Your task to perform on an android device: turn notification dots off Image 0: 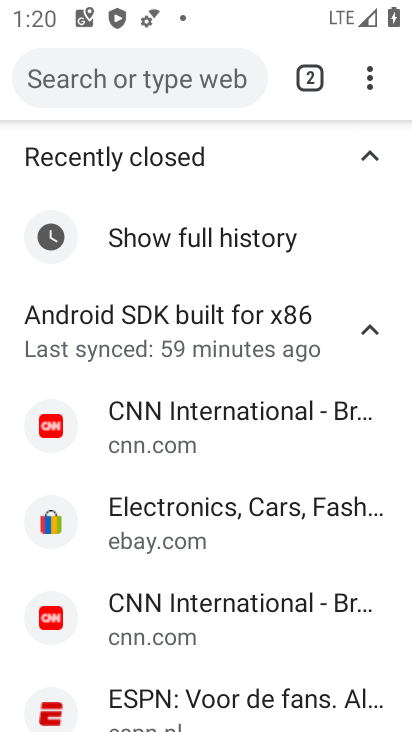
Step 0: press home button
Your task to perform on an android device: turn notification dots off Image 1: 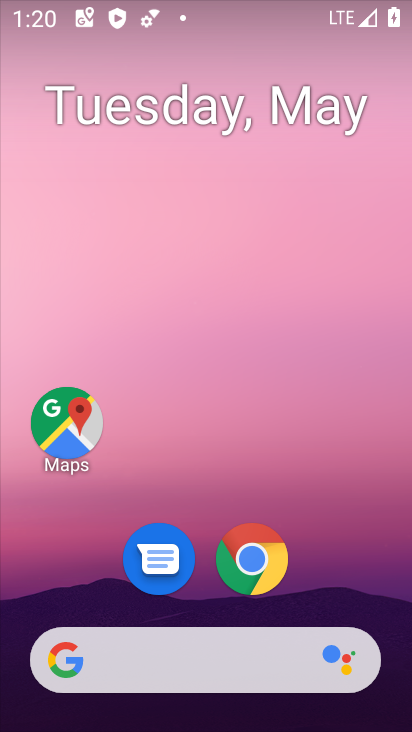
Step 1: drag from (315, 468) to (203, 44)
Your task to perform on an android device: turn notification dots off Image 2: 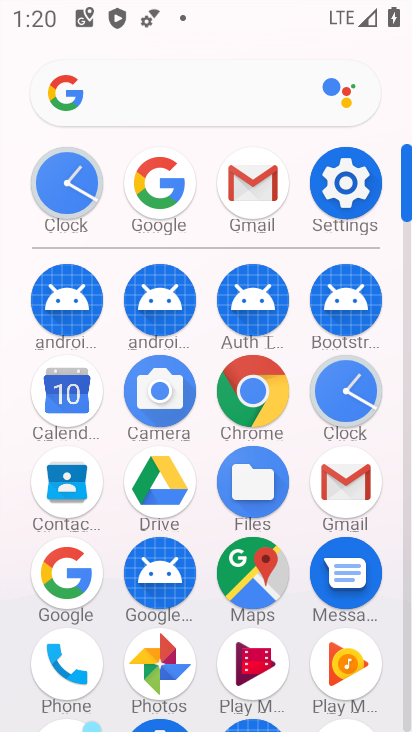
Step 2: click (349, 184)
Your task to perform on an android device: turn notification dots off Image 3: 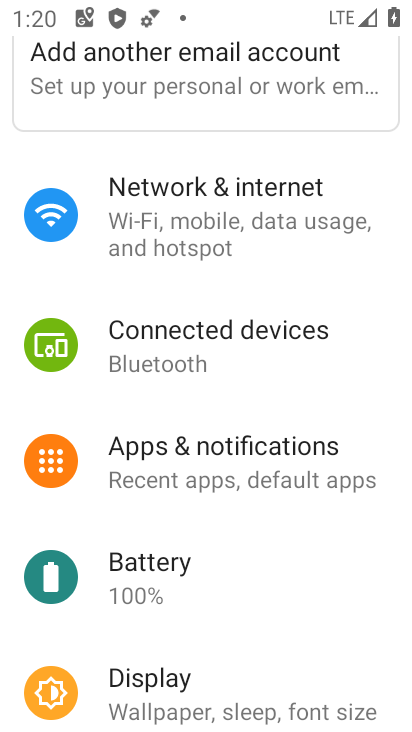
Step 3: click (208, 470)
Your task to perform on an android device: turn notification dots off Image 4: 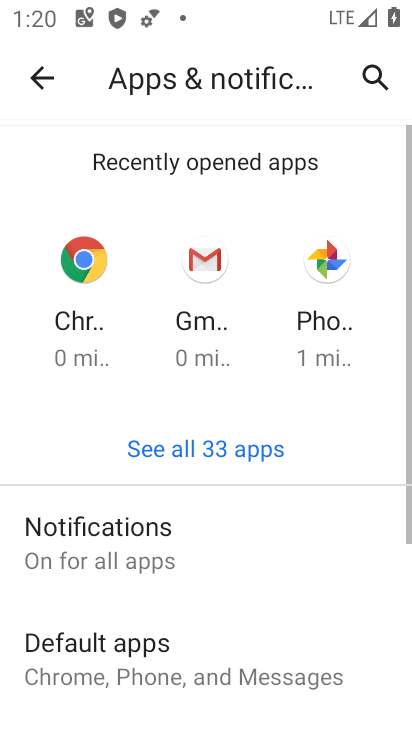
Step 4: click (140, 568)
Your task to perform on an android device: turn notification dots off Image 5: 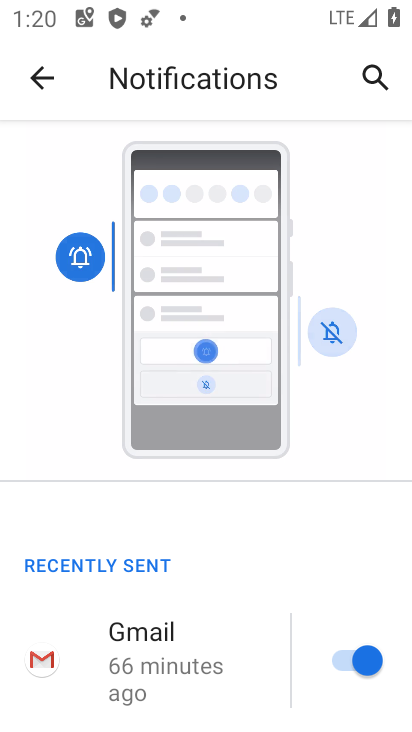
Step 5: drag from (216, 642) to (207, 313)
Your task to perform on an android device: turn notification dots off Image 6: 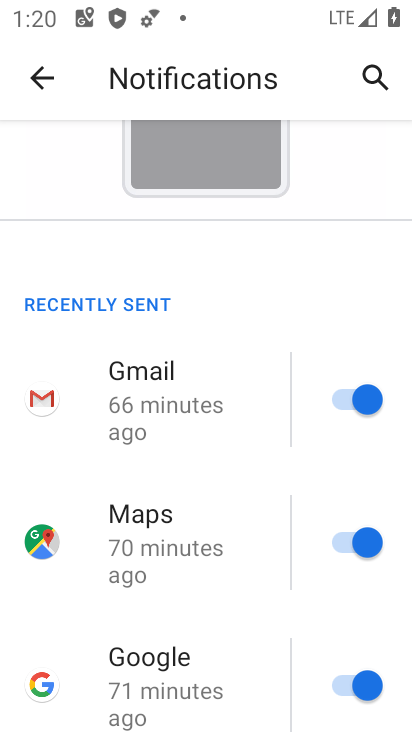
Step 6: drag from (216, 610) to (211, 256)
Your task to perform on an android device: turn notification dots off Image 7: 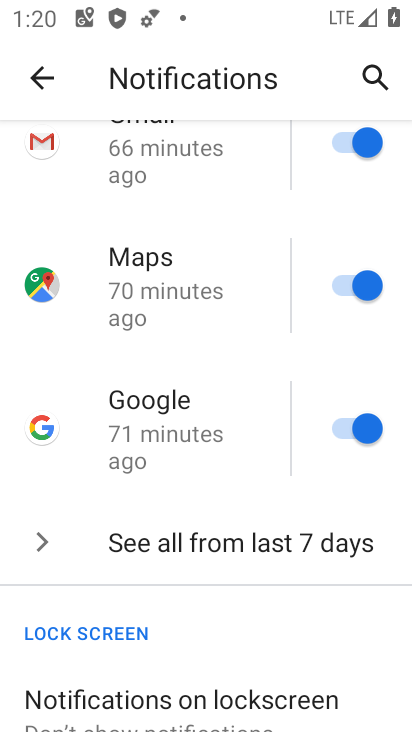
Step 7: drag from (224, 672) to (233, 155)
Your task to perform on an android device: turn notification dots off Image 8: 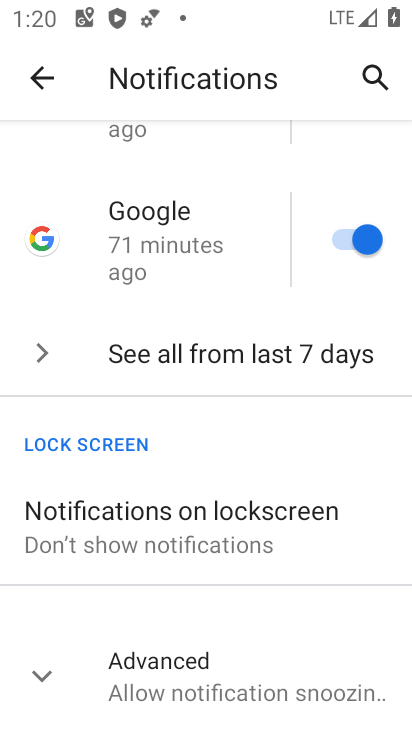
Step 8: drag from (235, 540) to (211, 177)
Your task to perform on an android device: turn notification dots off Image 9: 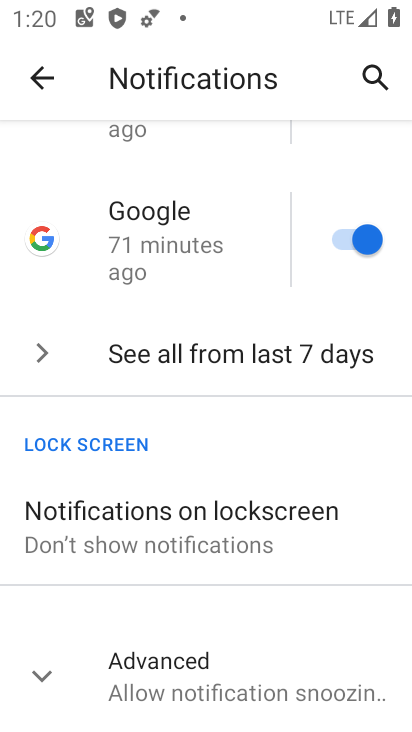
Step 9: click (190, 688)
Your task to perform on an android device: turn notification dots off Image 10: 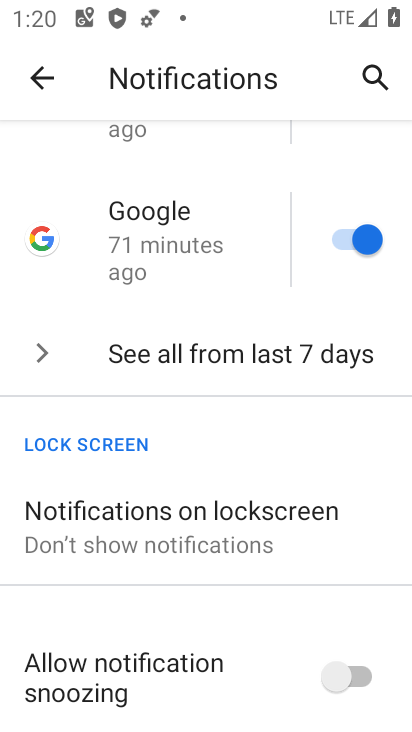
Step 10: drag from (208, 659) to (225, 340)
Your task to perform on an android device: turn notification dots off Image 11: 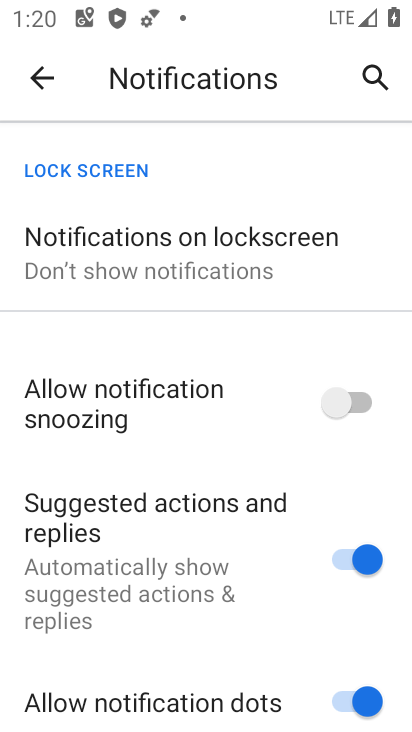
Step 11: drag from (186, 634) to (172, 311)
Your task to perform on an android device: turn notification dots off Image 12: 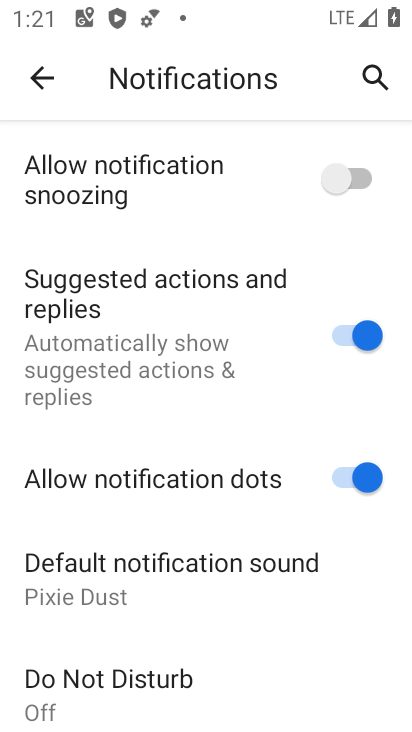
Step 12: click (351, 480)
Your task to perform on an android device: turn notification dots off Image 13: 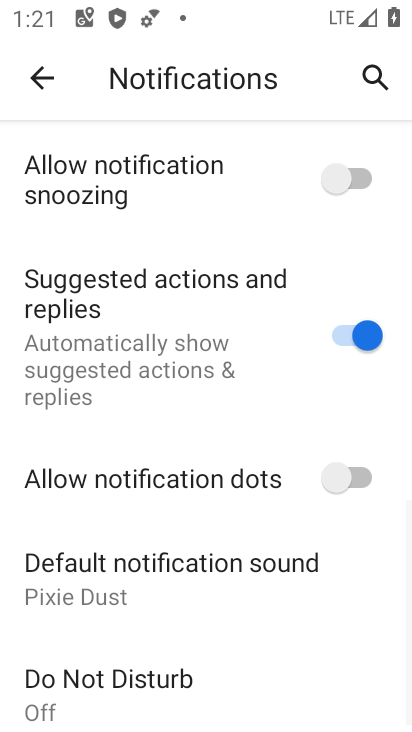
Step 13: task complete